Your task to perform on an android device: set default search engine in the chrome app Image 0: 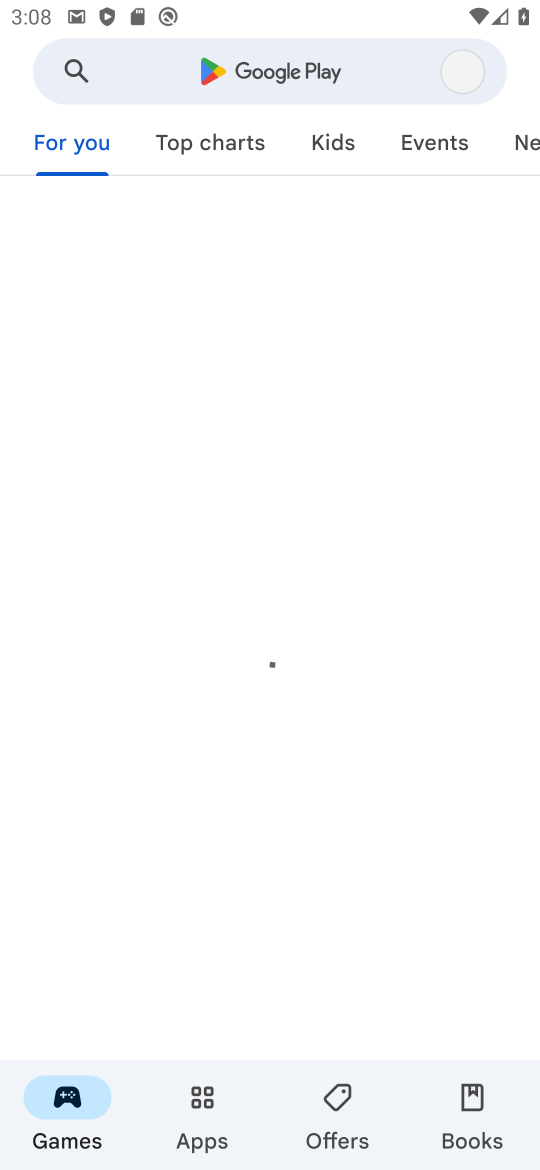
Step 0: press home button
Your task to perform on an android device: set default search engine in the chrome app Image 1: 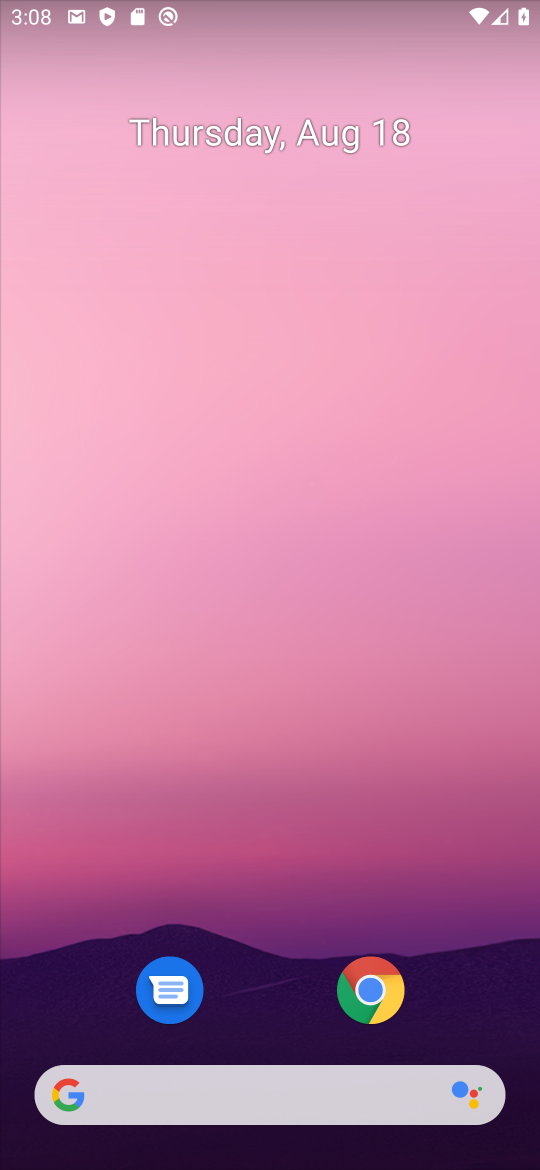
Step 1: drag from (216, 769) to (191, 174)
Your task to perform on an android device: set default search engine in the chrome app Image 2: 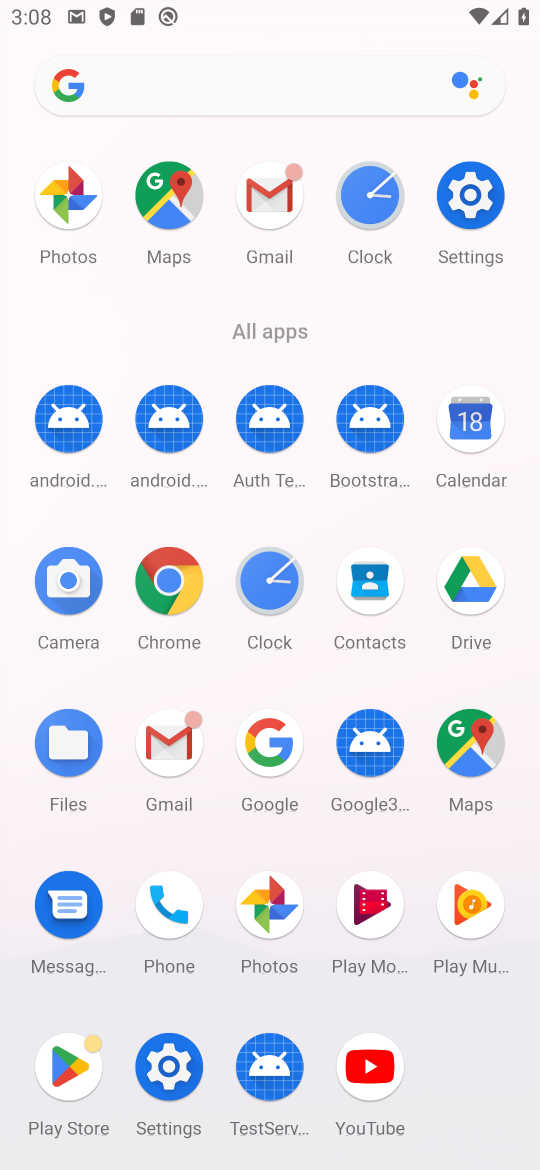
Step 2: click (166, 585)
Your task to perform on an android device: set default search engine in the chrome app Image 3: 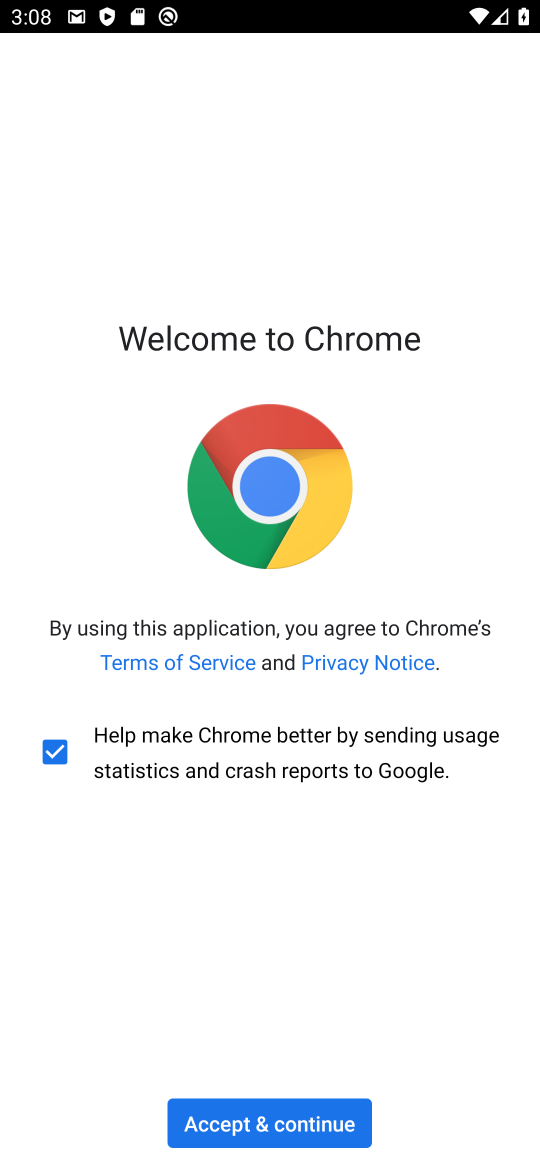
Step 3: click (275, 1127)
Your task to perform on an android device: set default search engine in the chrome app Image 4: 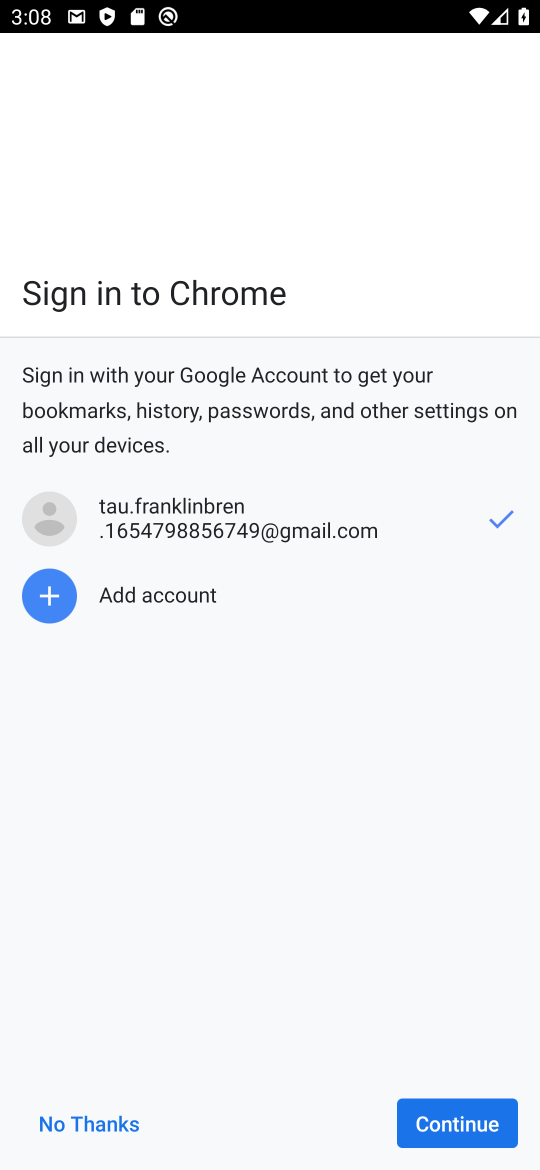
Step 4: click (417, 1109)
Your task to perform on an android device: set default search engine in the chrome app Image 5: 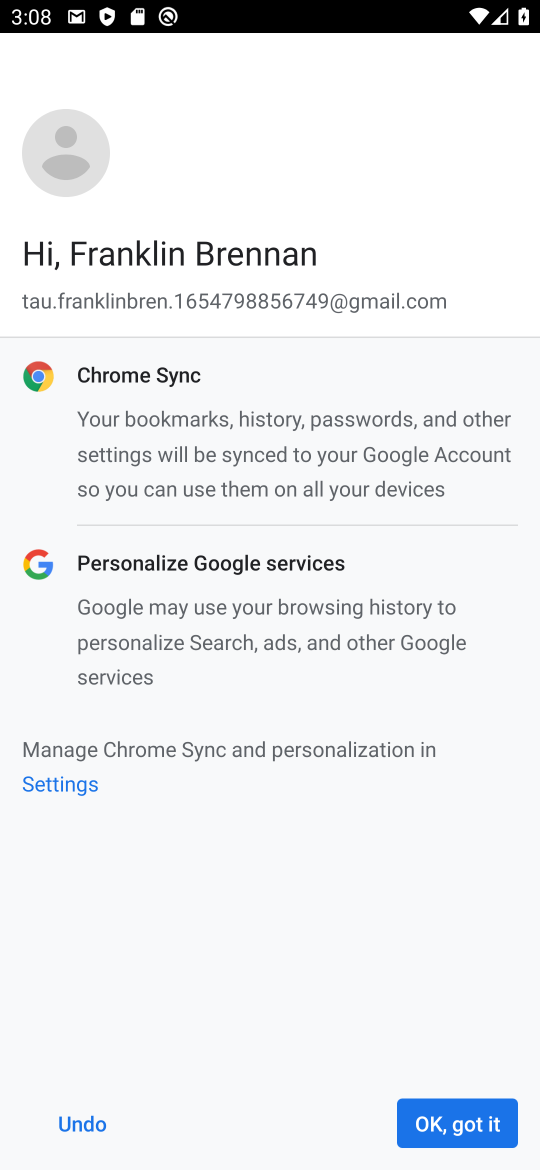
Step 5: click (457, 1115)
Your task to perform on an android device: set default search engine in the chrome app Image 6: 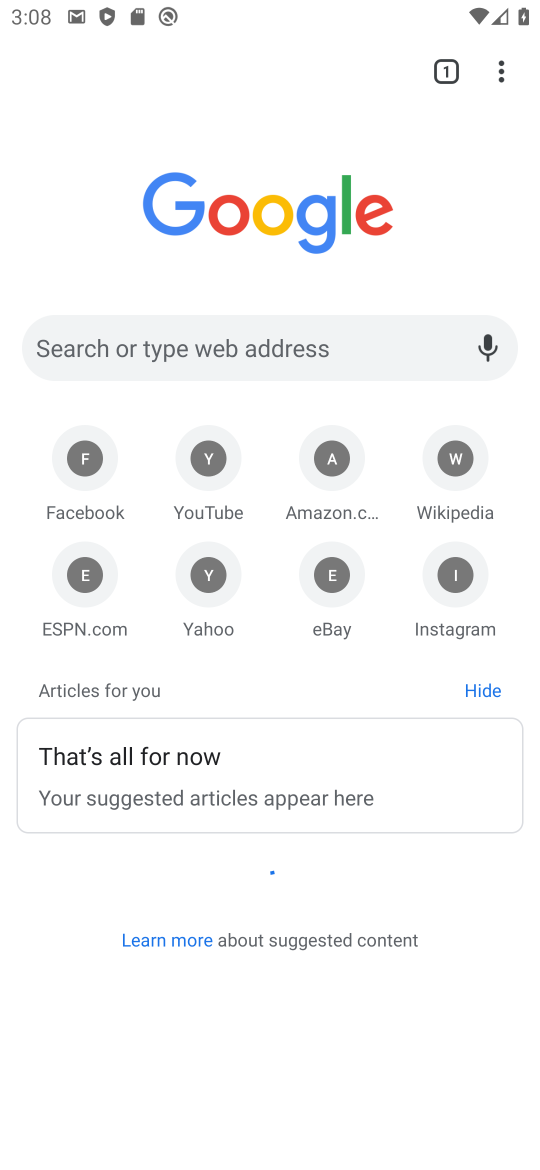
Step 6: drag from (520, 72) to (400, 593)
Your task to perform on an android device: set default search engine in the chrome app Image 7: 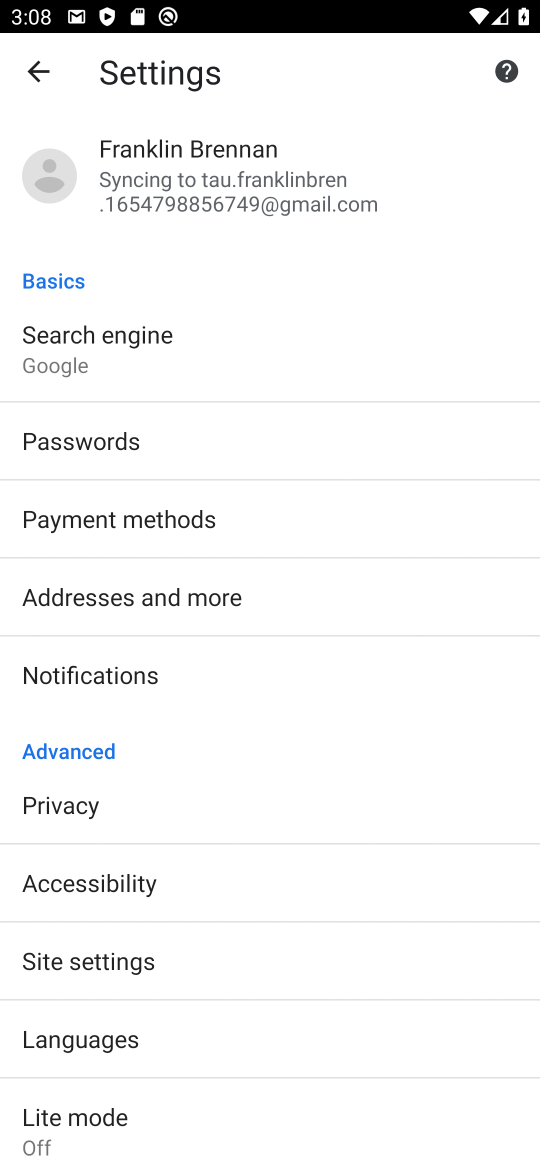
Step 7: drag from (376, 1075) to (276, 682)
Your task to perform on an android device: set default search engine in the chrome app Image 8: 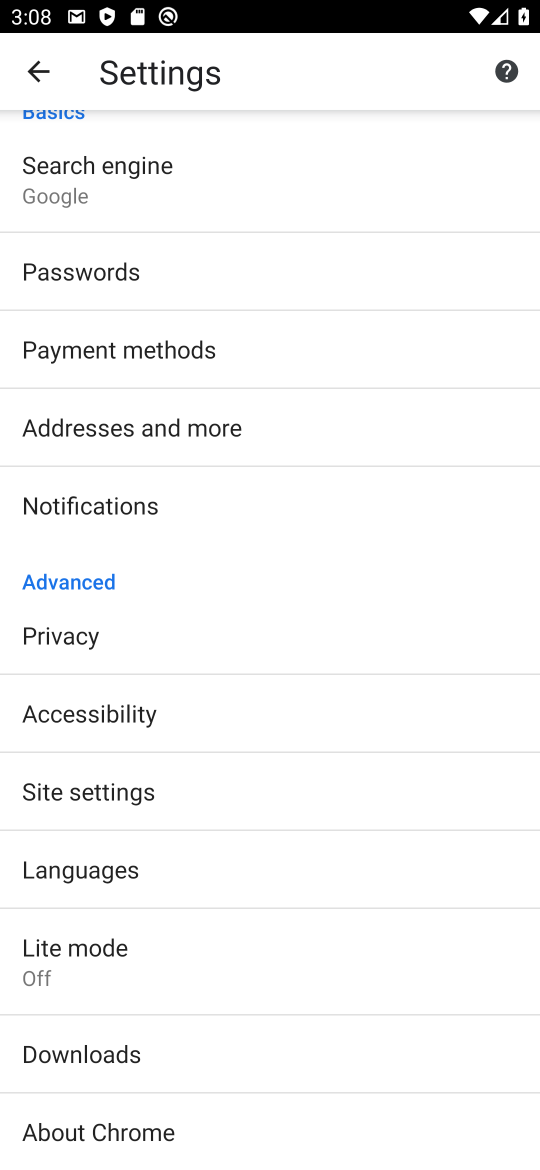
Step 8: drag from (238, 511) to (336, 814)
Your task to perform on an android device: set default search engine in the chrome app Image 9: 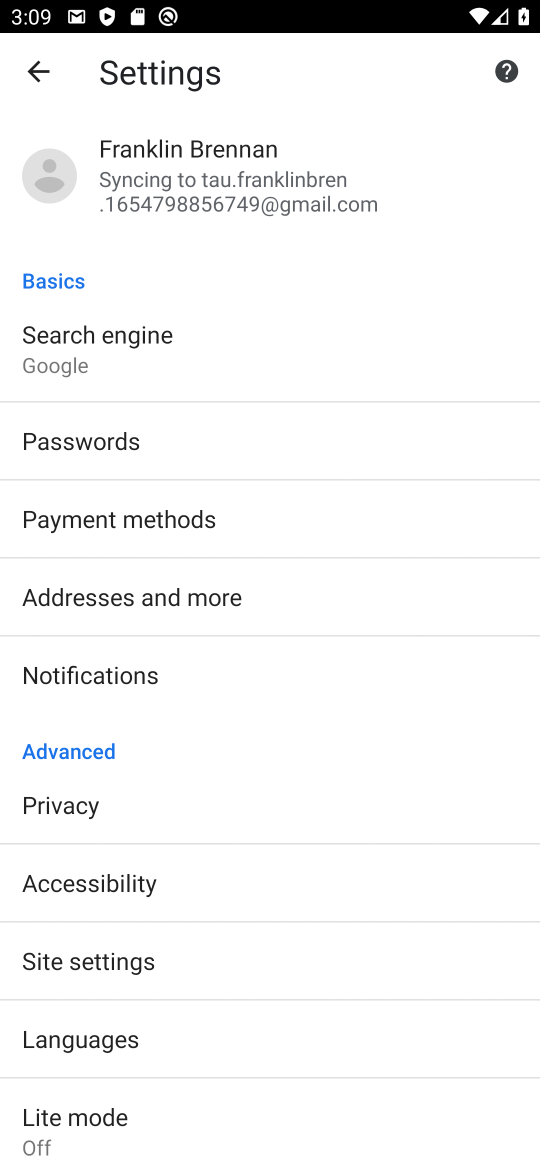
Step 9: click (119, 361)
Your task to perform on an android device: set default search engine in the chrome app Image 10: 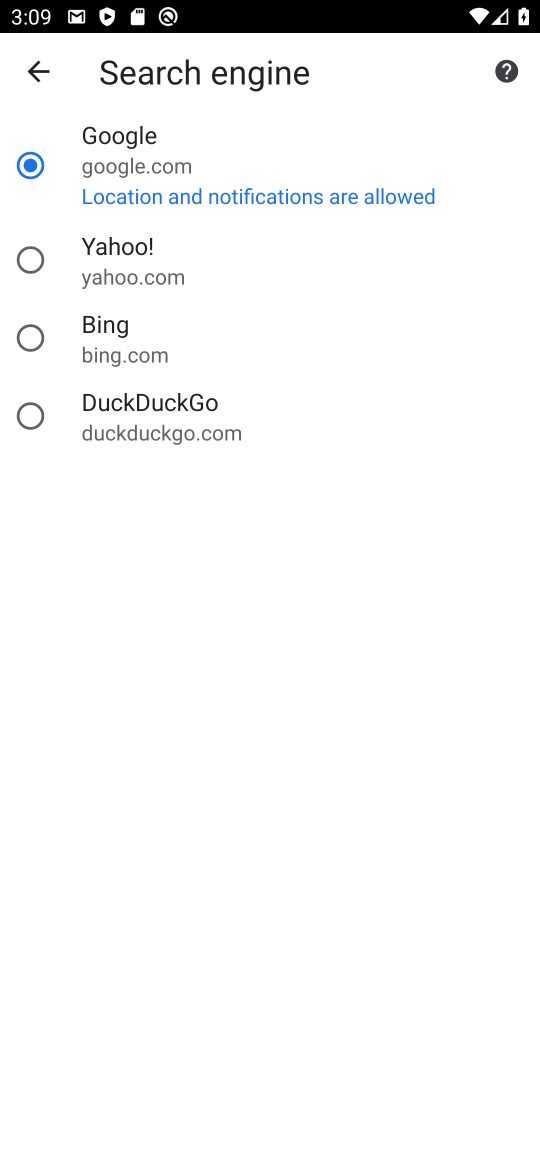
Step 10: task complete